Your task to perform on an android device: Do I have any events today? Image 0: 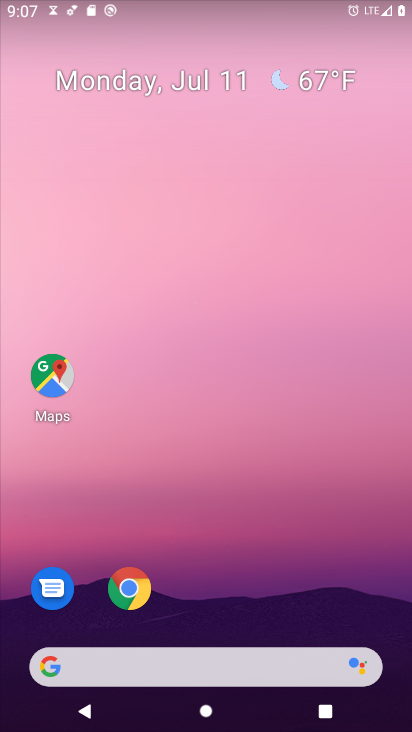
Step 0: drag from (273, 531) to (294, 47)
Your task to perform on an android device: Do I have any events today? Image 1: 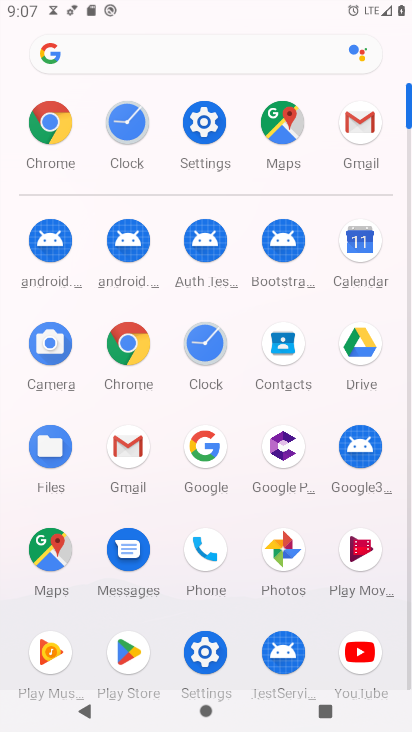
Step 1: click (362, 243)
Your task to perform on an android device: Do I have any events today? Image 2: 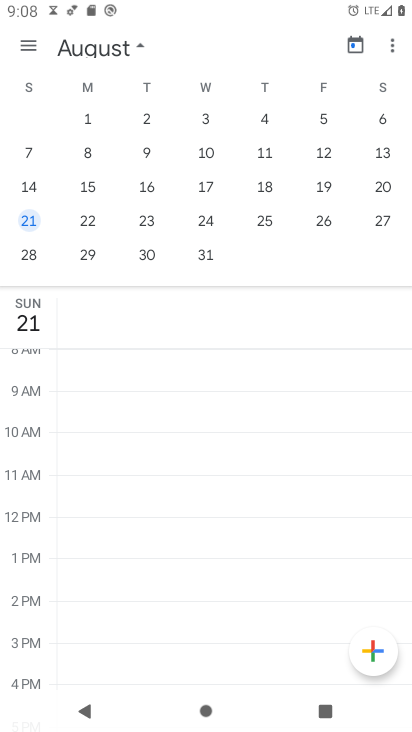
Step 2: drag from (47, 177) to (409, 230)
Your task to perform on an android device: Do I have any events today? Image 3: 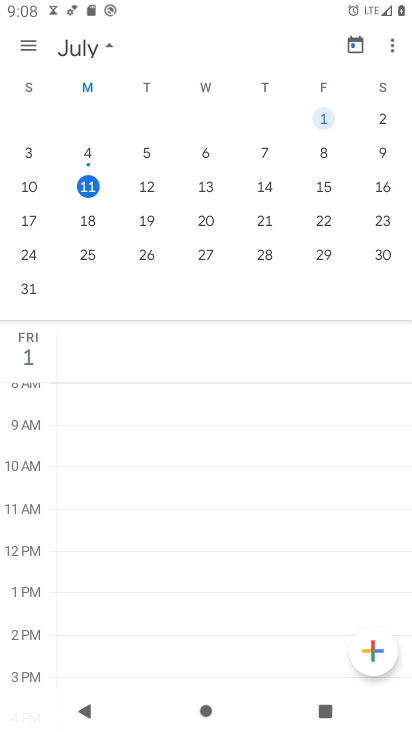
Step 3: click (88, 181)
Your task to perform on an android device: Do I have any events today? Image 4: 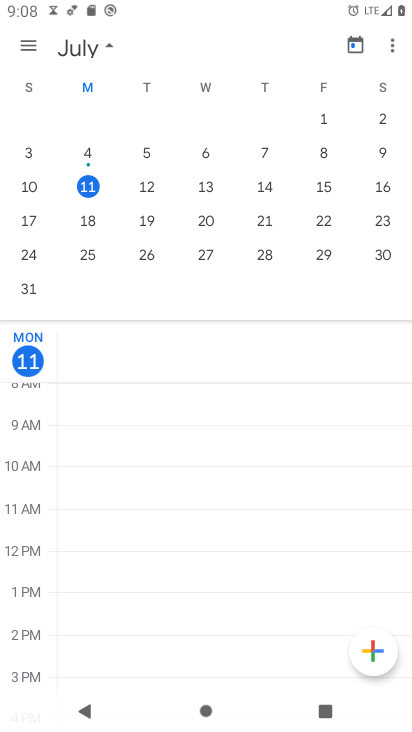
Step 4: click (36, 37)
Your task to perform on an android device: Do I have any events today? Image 5: 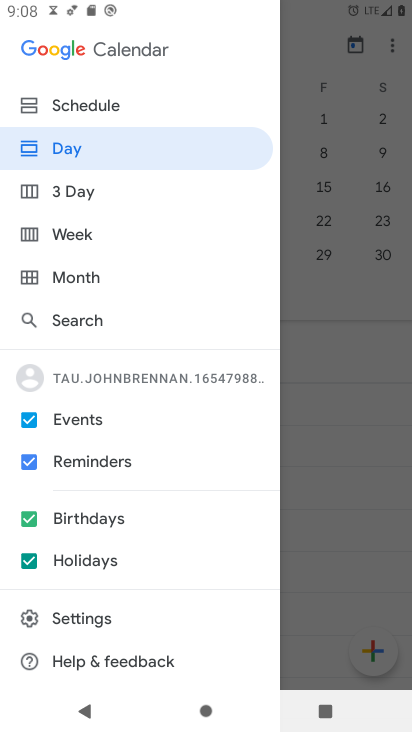
Step 5: click (119, 96)
Your task to perform on an android device: Do I have any events today? Image 6: 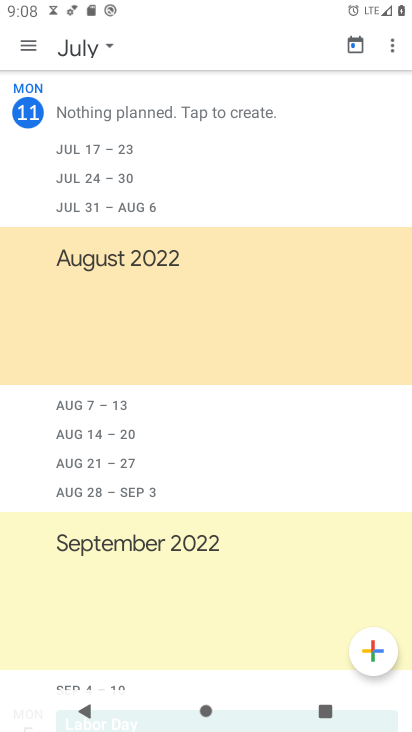
Step 6: task complete